Your task to perform on an android device: What is the recent news? Image 0: 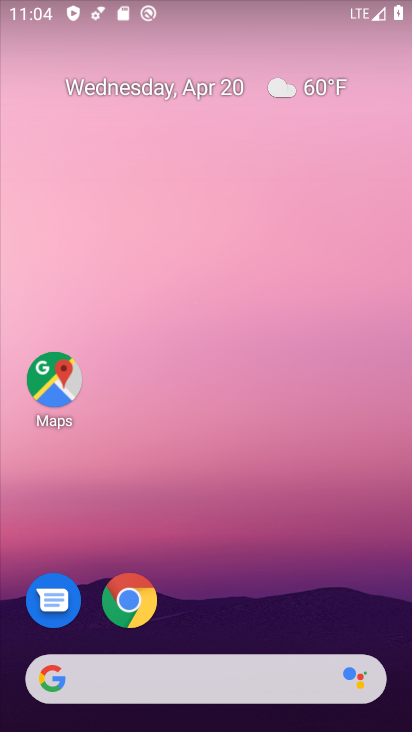
Step 0: drag from (326, 566) to (228, 149)
Your task to perform on an android device: What is the recent news? Image 1: 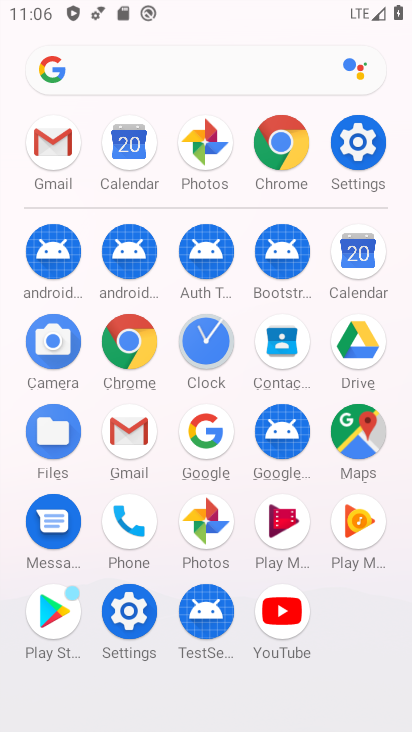
Step 1: click (123, 341)
Your task to perform on an android device: What is the recent news? Image 2: 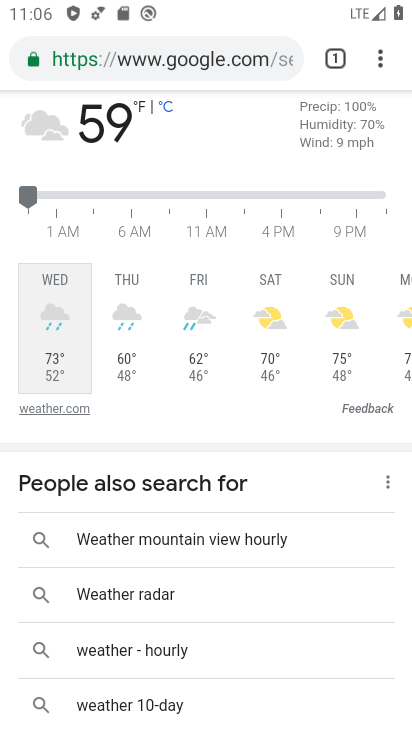
Step 2: drag from (229, 105) to (269, 486)
Your task to perform on an android device: What is the recent news? Image 3: 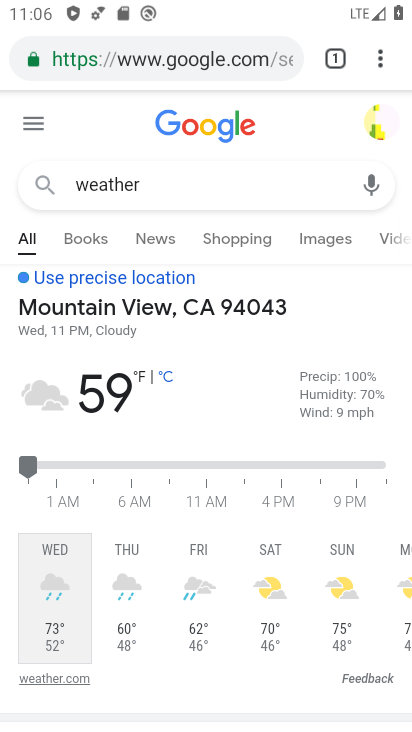
Step 3: click (240, 193)
Your task to perform on an android device: What is the recent news? Image 4: 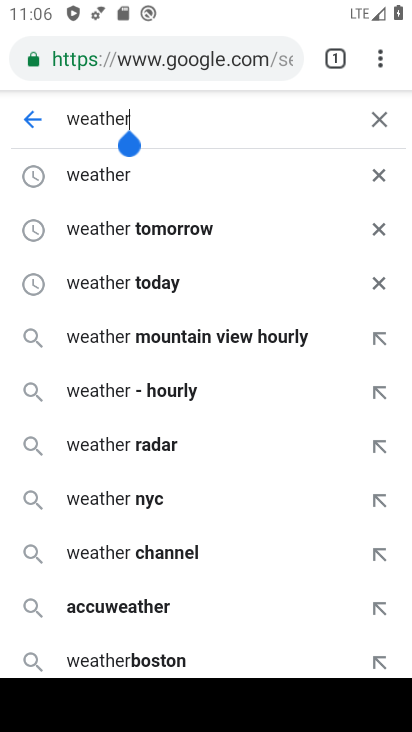
Step 4: click (377, 117)
Your task to perform on an android device: What is the recent news? Image 5: 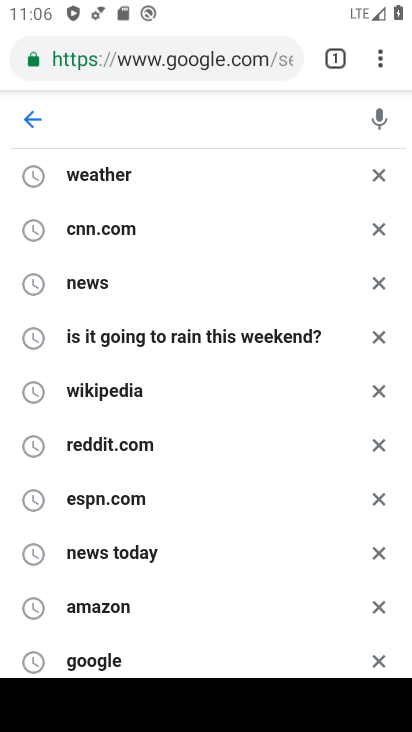
Step 5: click (75, 287)
Your task to perform on an android device: What is the recent news? Image 6: 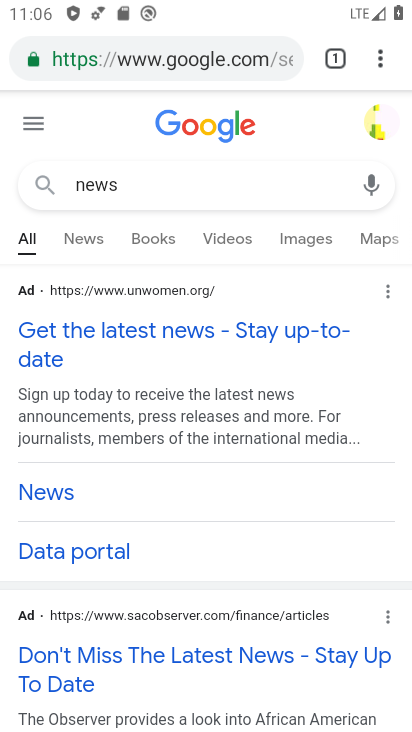
Step 6: drag from (298, 510) to (237, 108)
Your task to perform on an android device: What is the recent news? Image 7: 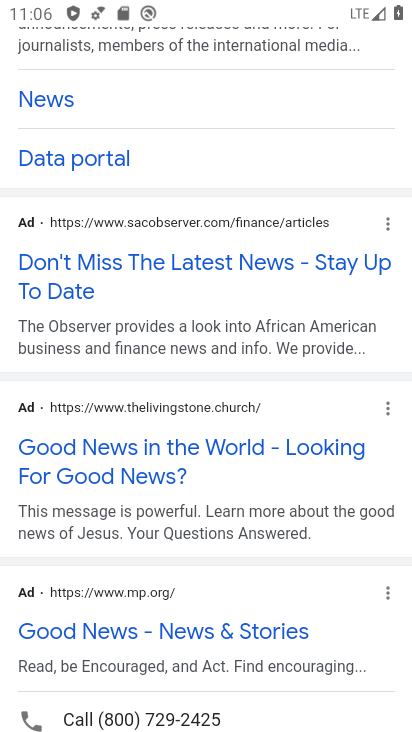
Step 7: drag from (182, 531) to (180, 142)
Your task to perform on an android device: What is the recent news? Image 8: 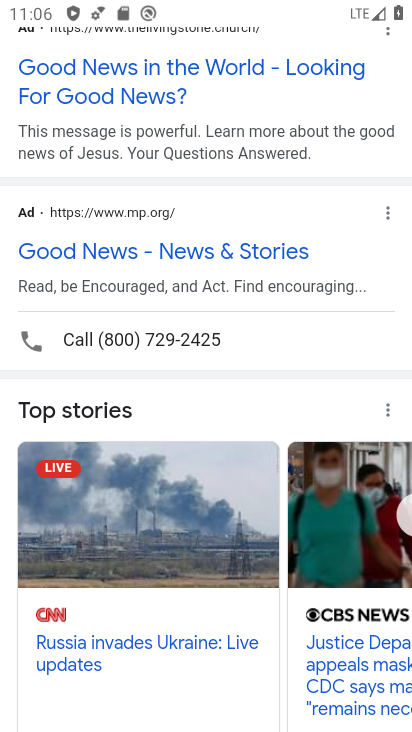
Step 8: drag from (189, 168) to (273, 672)
Your task to perform on an android device: What is the recent news? Image 9: 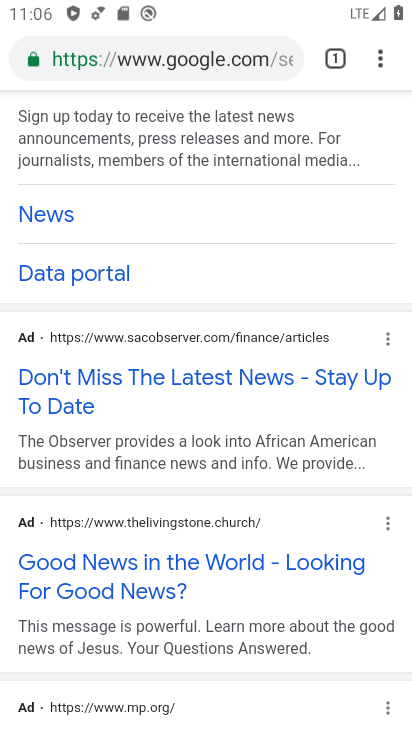
Step 9: drag from (120, 207) to (209, 634)
Your task to perform on an android device: What is the recent news? Image 10: 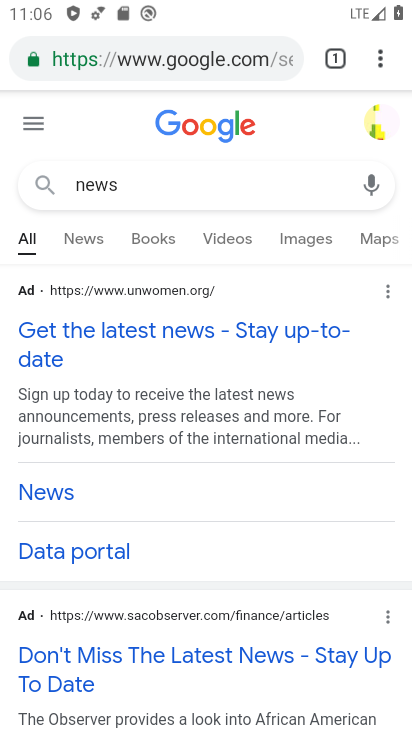
Step 10: click (96, 240)
Your task to perform on an android device: What is the recent news? Image 11: 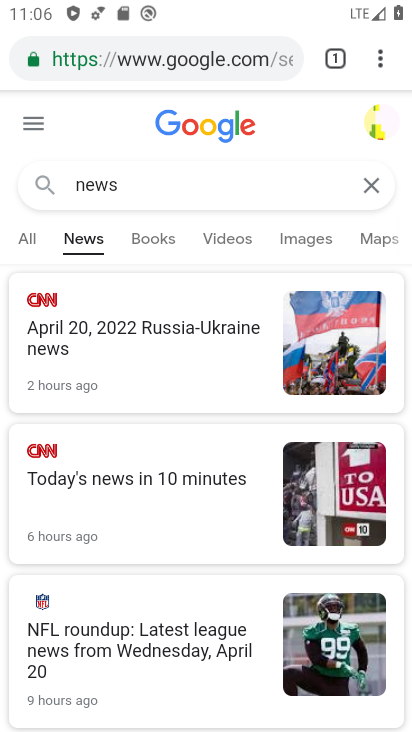
Step 11: task complete